Your task to perform on an android device: uninstall "Google News" Image 0: 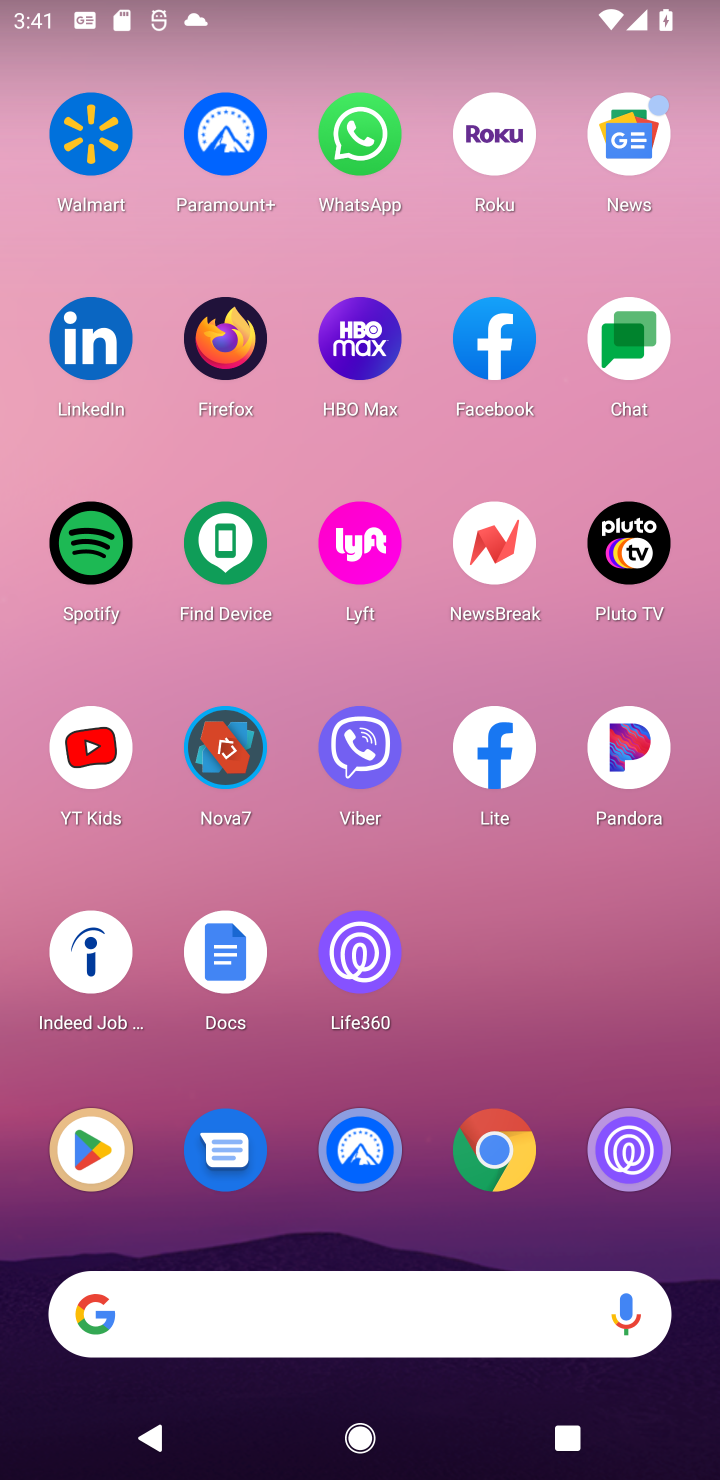
Step 0: click (340, 1342)
Your task to perform on an android device: uninstall "Google News" Image 1: 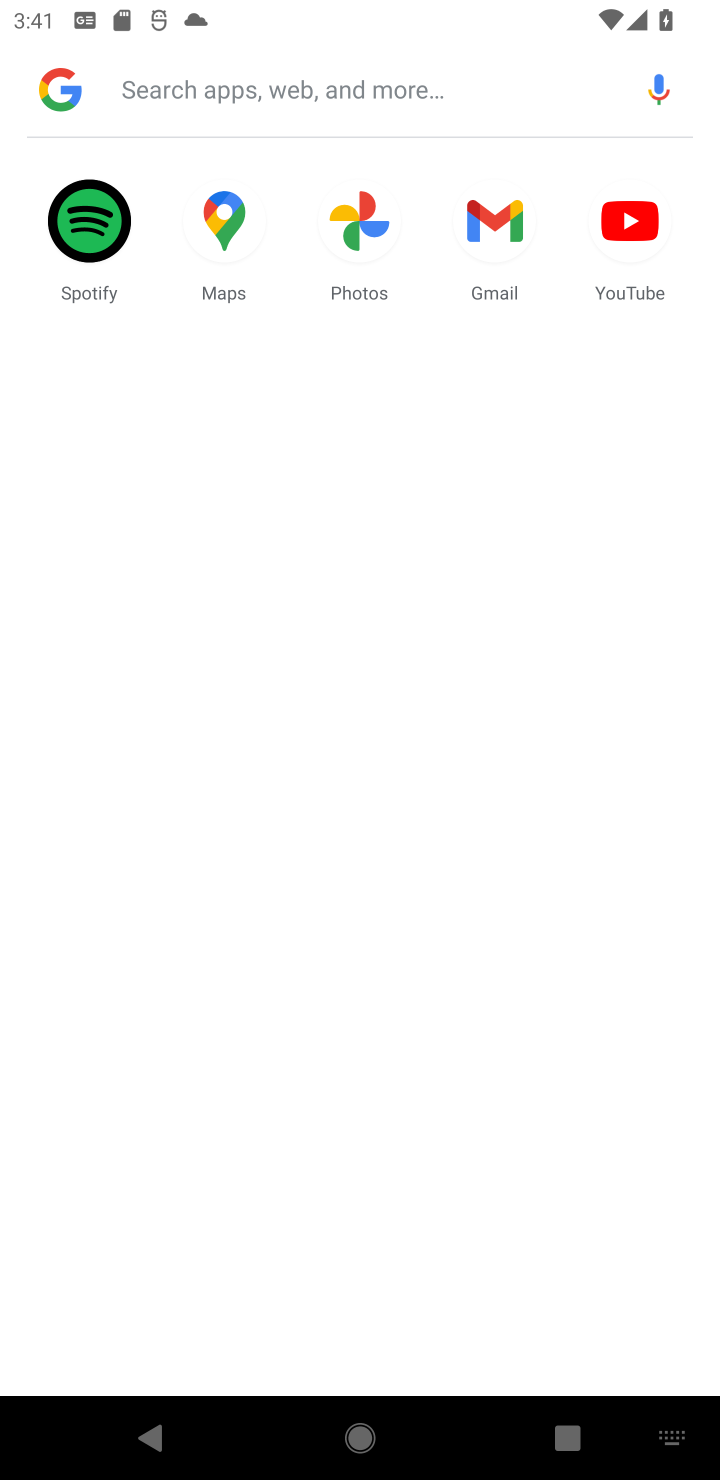
Step 1: type "google news"
Your task to perform on an android device: uninstall "Google News" Image 2: 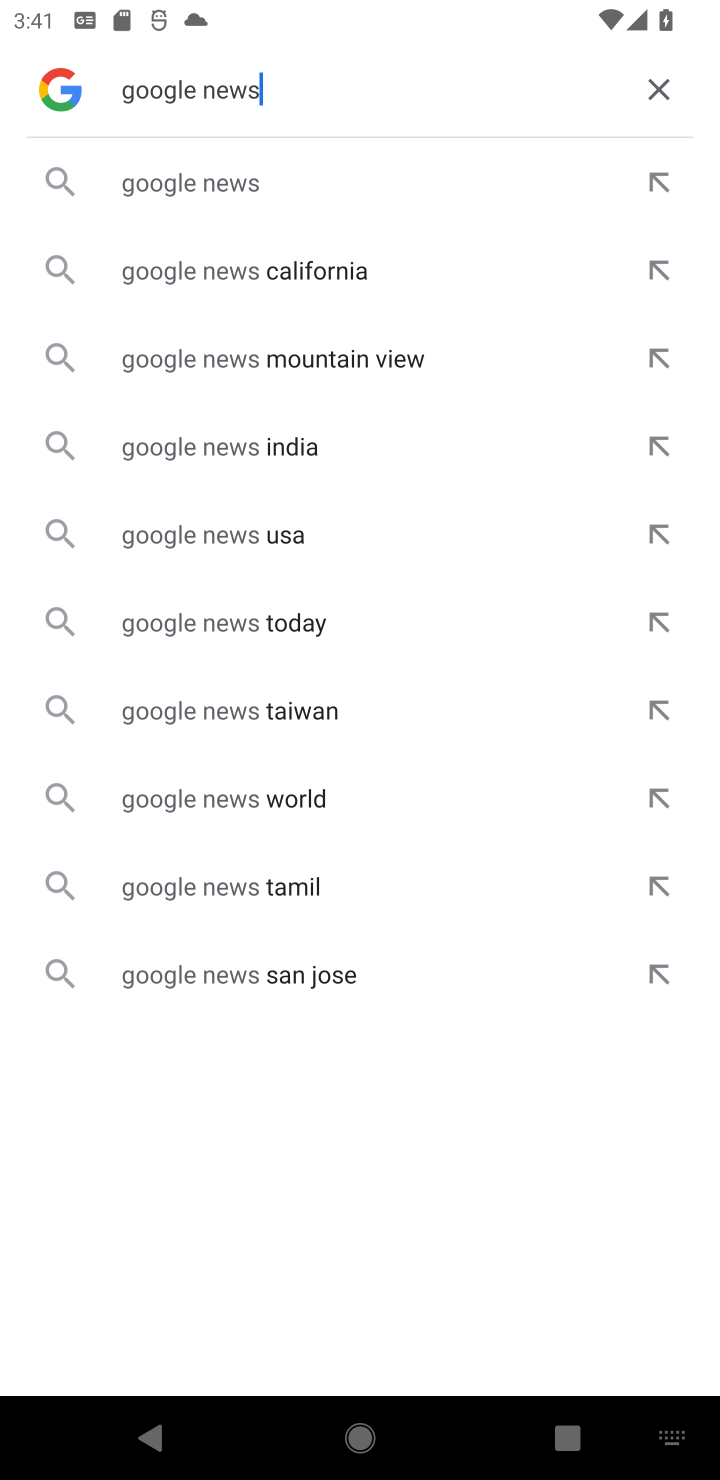
Step 2: click (316, 199)
Your task to perform on an android device: uninstall "Google News" Image 3: 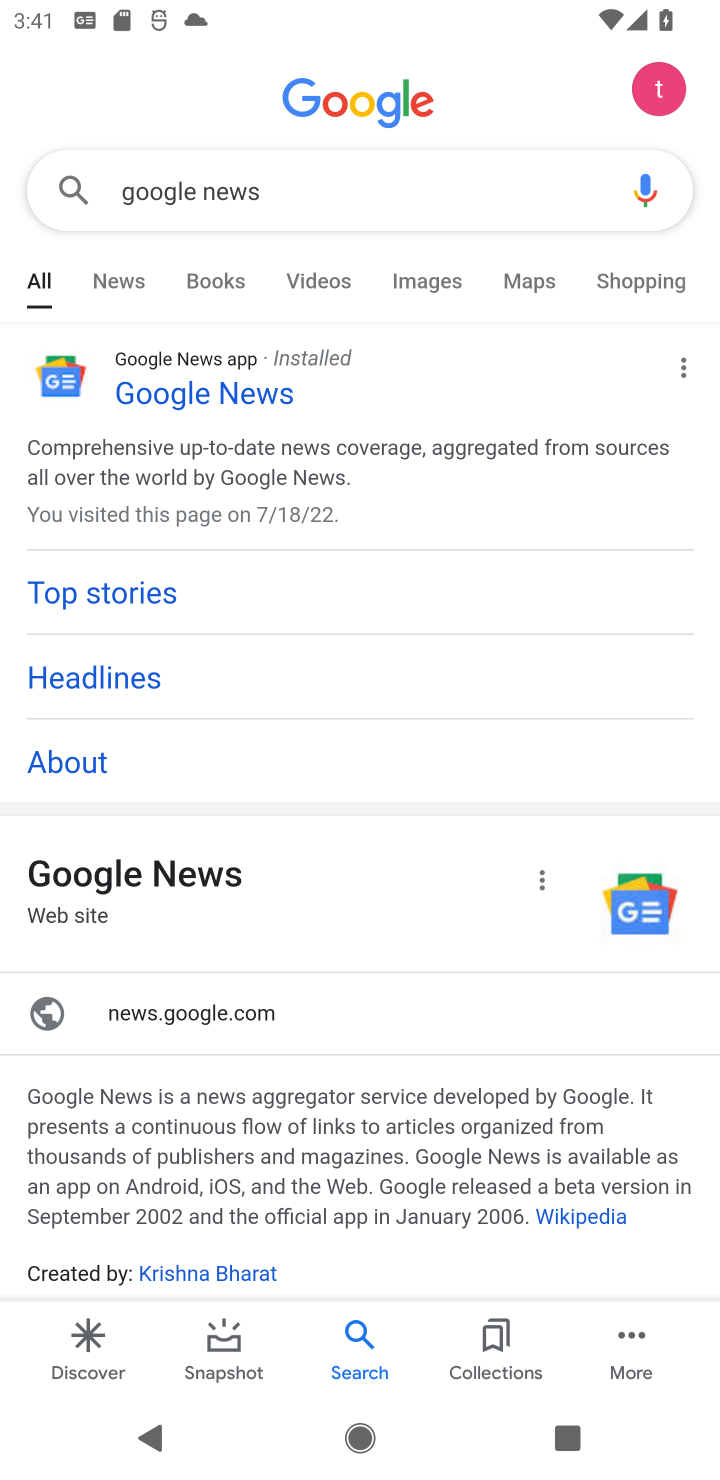
Step 3: click (648, 917)
Your task to perform on an android device: uninstall "Google News" Image 4: 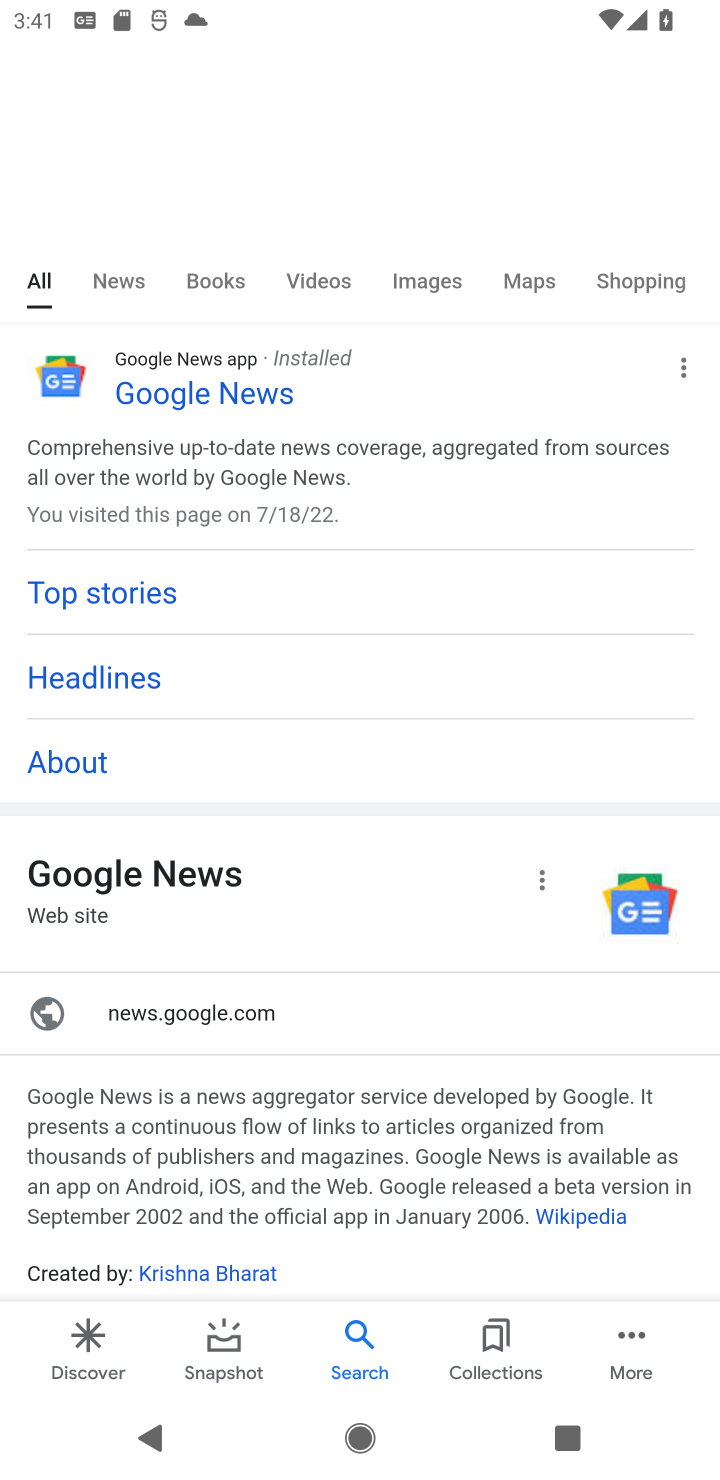
Step 4: task complete